Your task to perform on an android device: Go to Google Image 0: 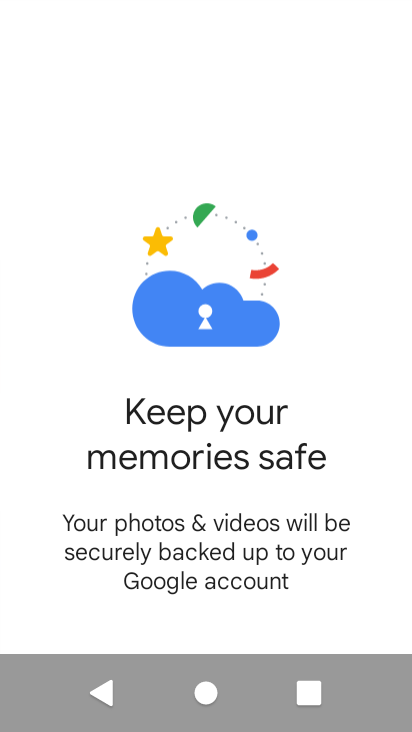
Step 0: press home button
Your task to perform on an android device: Go to Google Image 1: 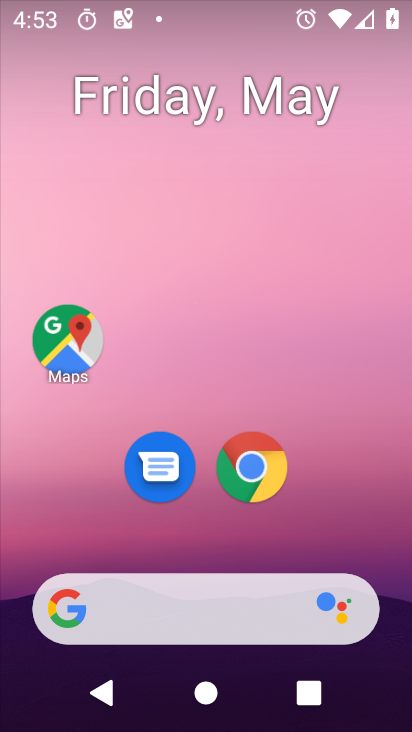
Step 1: drag from (307, 499) to (299, 7)
Your task to perform on an android device: Go to Google Image 2: 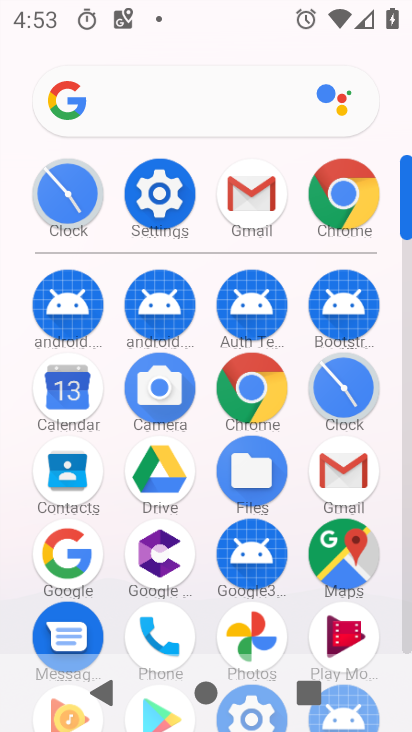
Step 2: click (74, 559)
Your task to perform on an android device: Go to Google Image 3: 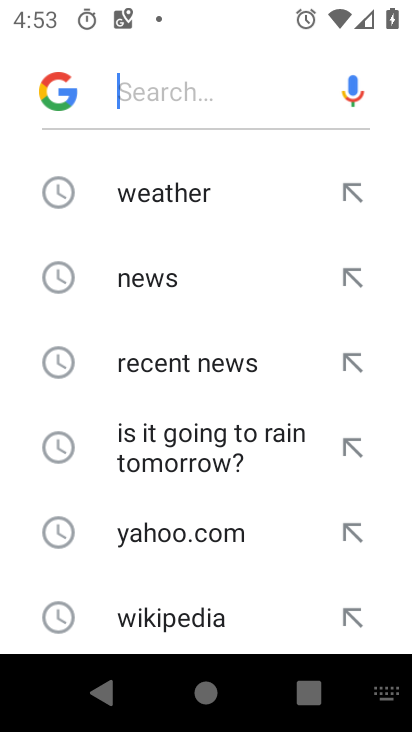
Step 3: task complete